Your task to perform on an android device: turn off location Image 0: 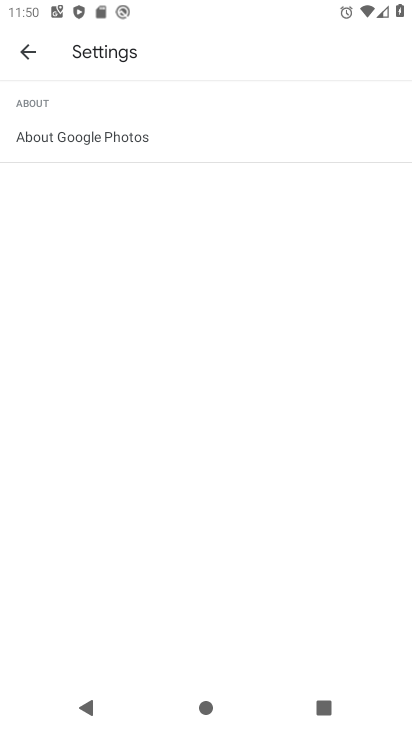
Step 0: press home button
Your task to perform on an android device: turn off location Image 1: 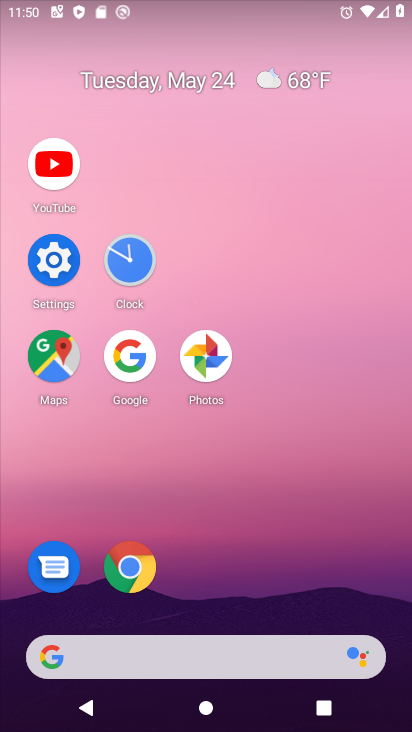
Step 1: click (49, 265)
Your task to perform on an android device: turn off location Image 2: 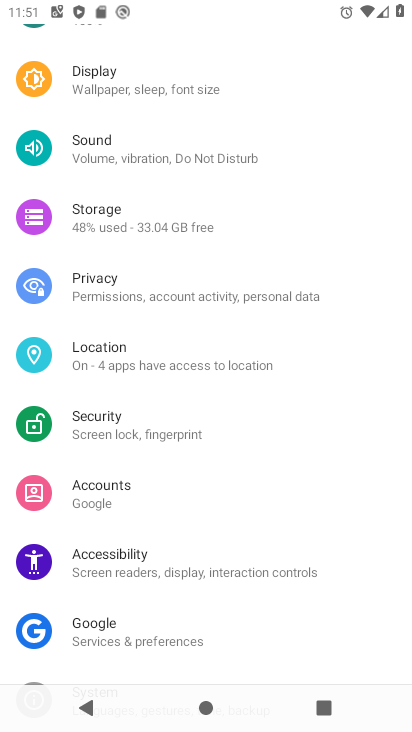
Step 2: click (197, 363)
Your task to perform on an android device: turn off location Image 3: 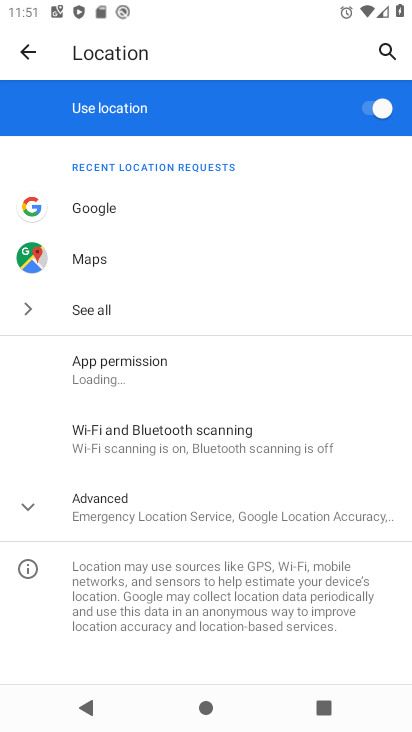
Step 3: click (384, 104)
Your task to perform on an android device: turn off location Image 4: 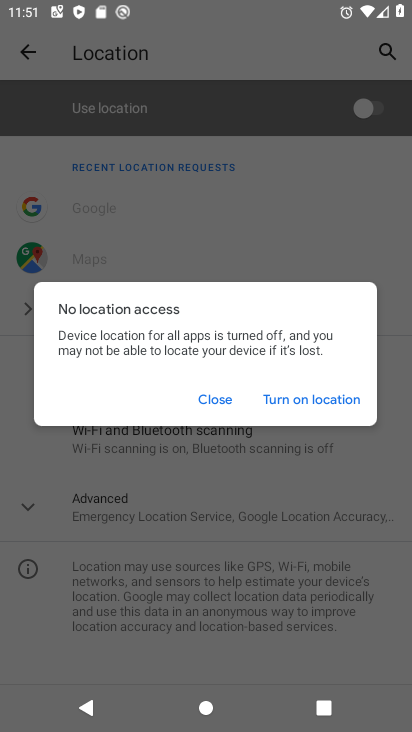
Step 4: task complete